Your task to perform on an android device: Search for a coffee table on IKEA Image 0: 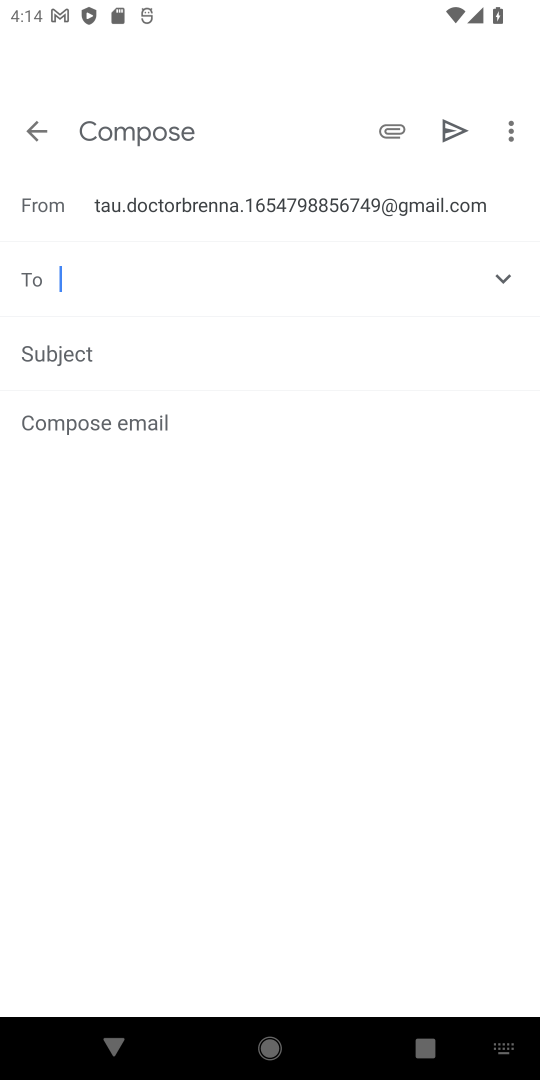
Step 0: press home button
Your task to perform on an android device: Search for a coffee table on IKEA Image 1: 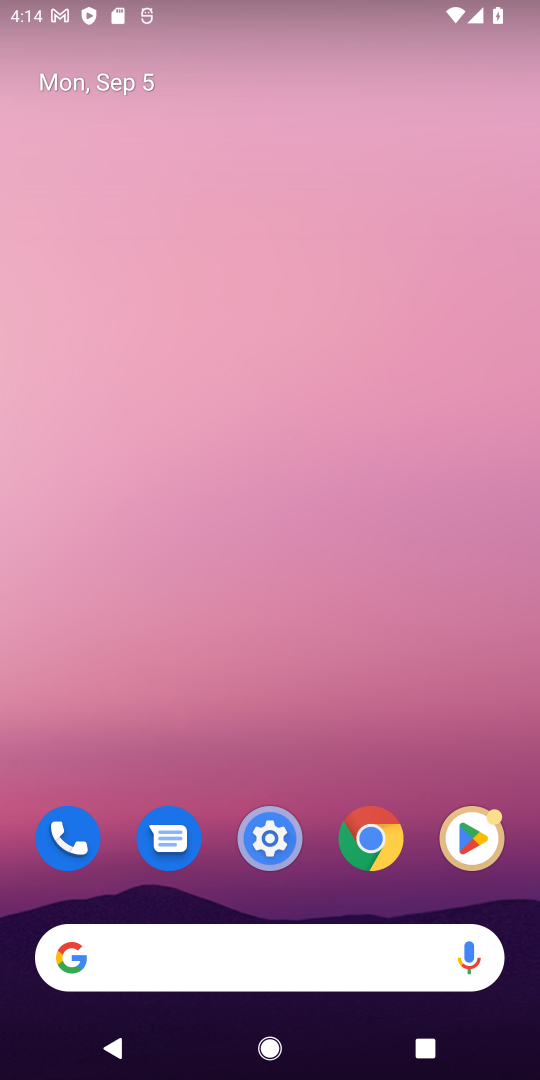
Step 1: drag from (309, 578) to (218, 179)
Your task to perform on an android device: Search for a coffee table on IKEA Image 2: 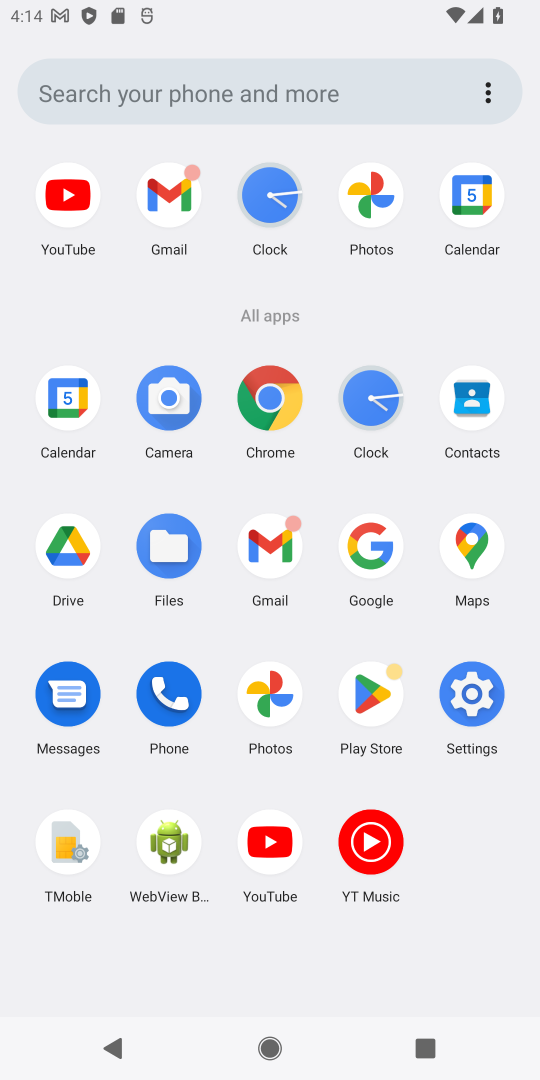
Step 2: click (264, 412)
Your task to perform on an android device: Search for a coffee table on IKEA Image 3: 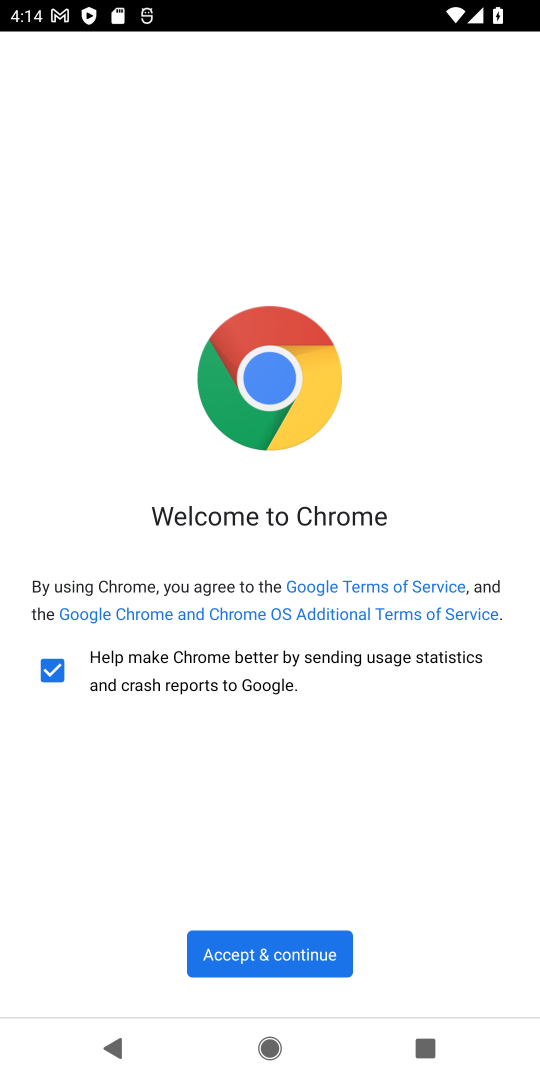
Step 3: click (312, 949)
Your task to perform on an android device: Search for a coffee table on IKEA Image 4: 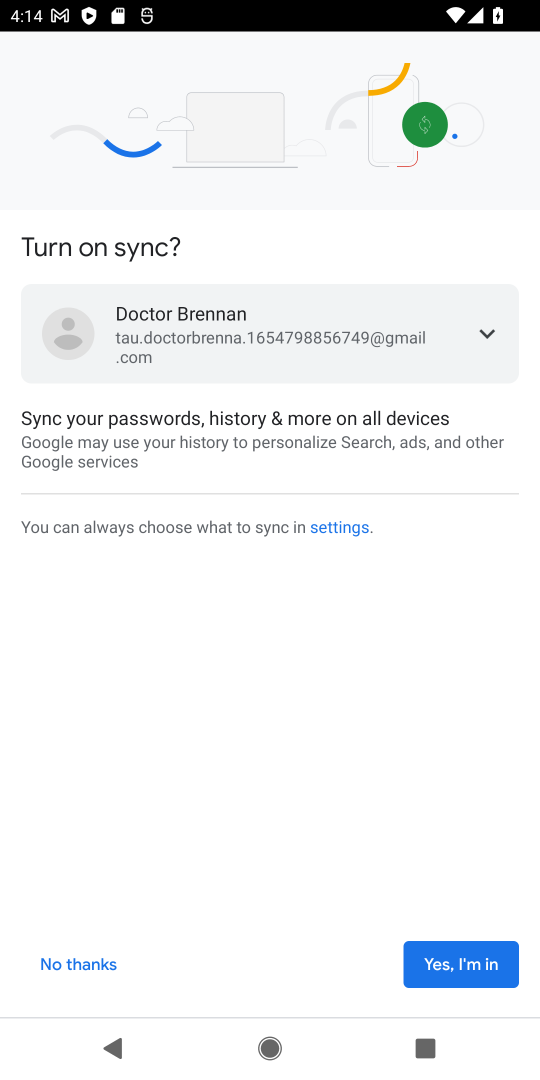
Step 4: click (453, 961)
Your task to perform on an android device: Search for a coffee table on IKEA Image 5: 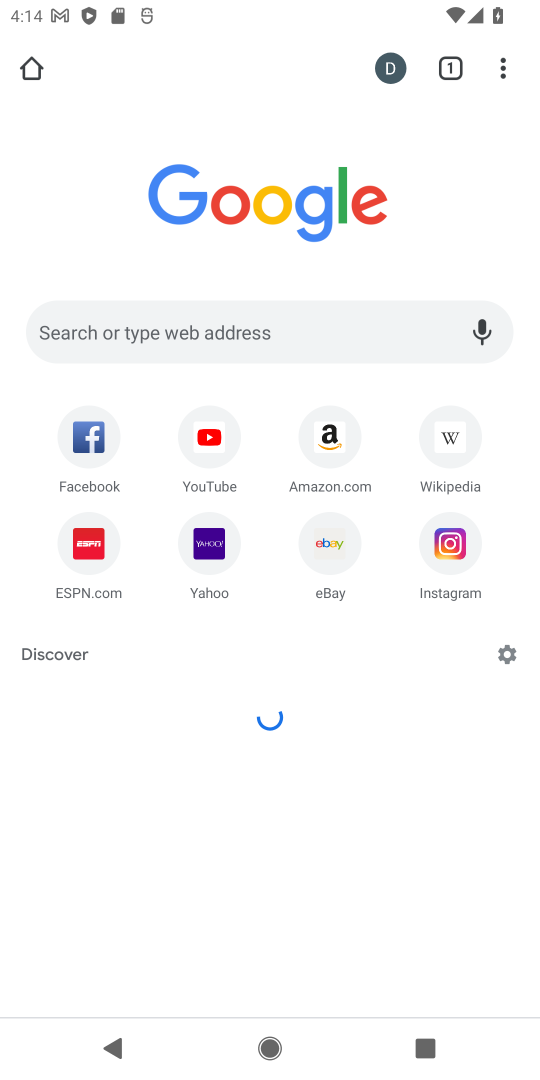
Step 5: click (197, 331)
Your task to perform on an android device: Search for a coffee table on IKEA Image 6: 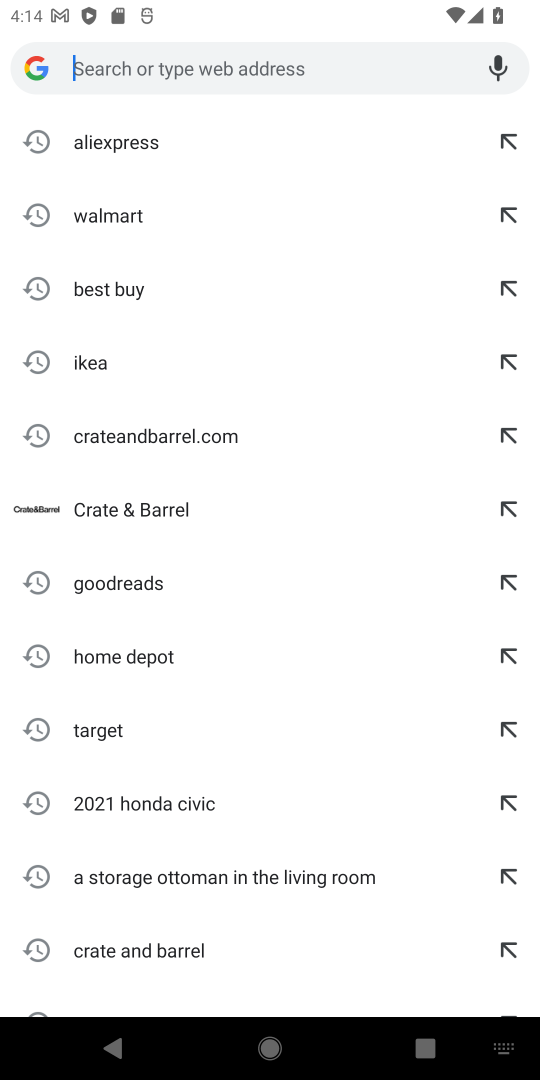
Step 6: type "IKEA"
Your task to perform on an android device: Search for a coffee table on IKEA Image 7: 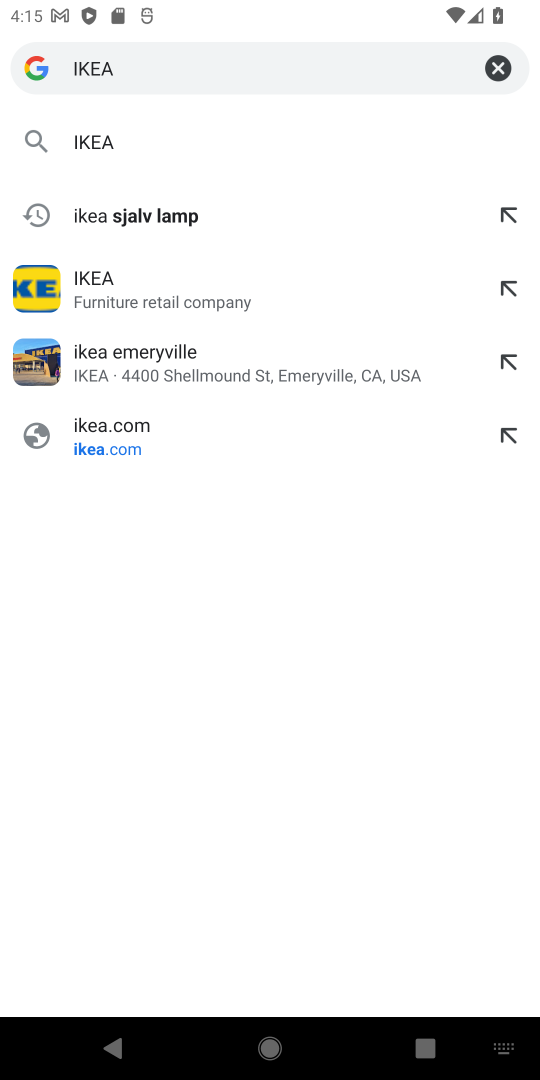
Step 7: click (84, 142)
Your task to perform on an android device: Search for a coffee table on IKEA Image 8: 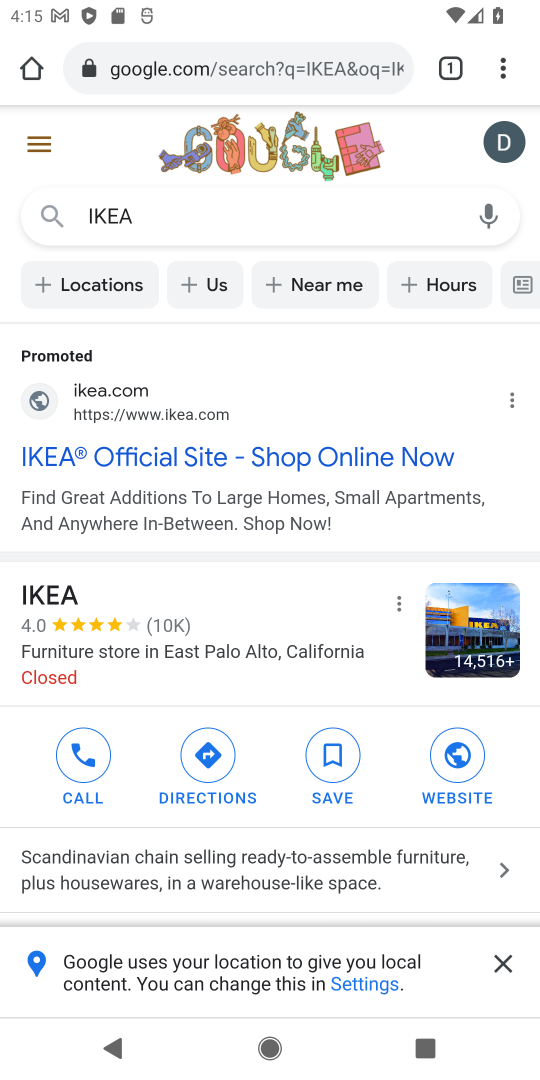
Step 8: click (137, 442)
Your task to perform on an android device: Search for a coffee table on IKEA Image 9: 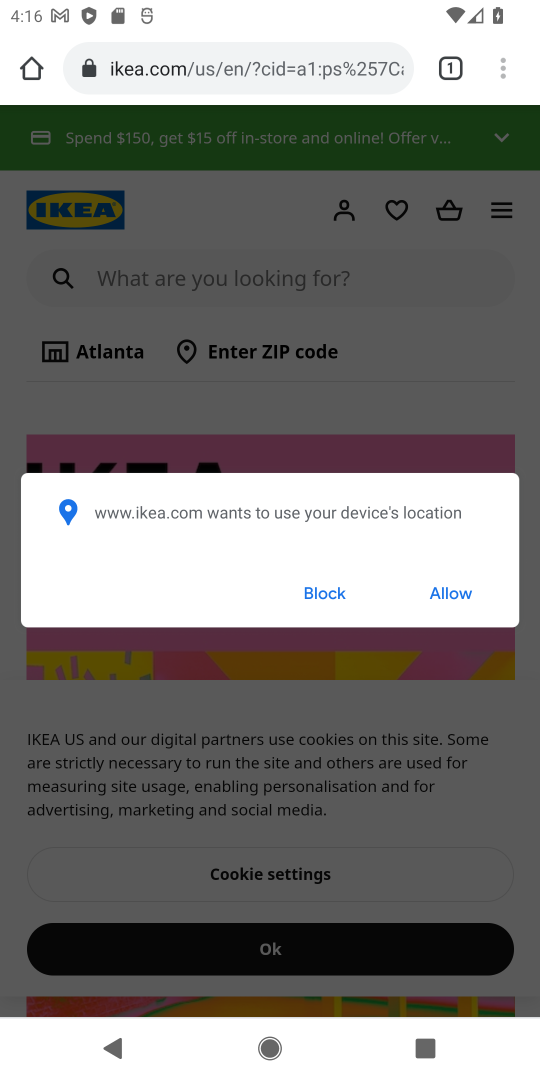
Step 9: click (455, 584)
Your task to perform on an android device: Search for a coffee table on IKEA Image 10: 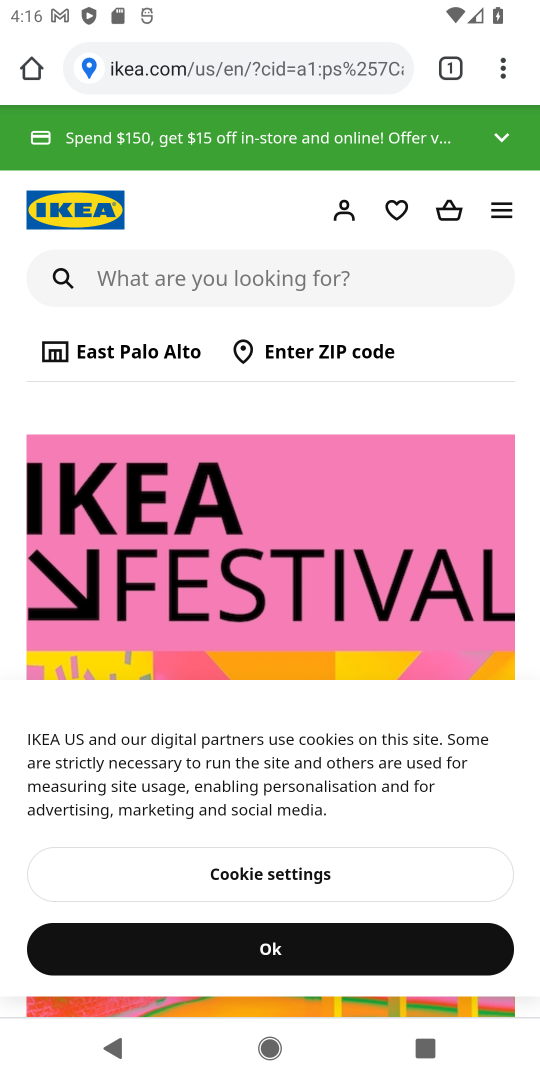
Step 10: click (187, 277)
Your task to perform on an android device: Search for a coffee table on IKEA Image 11: 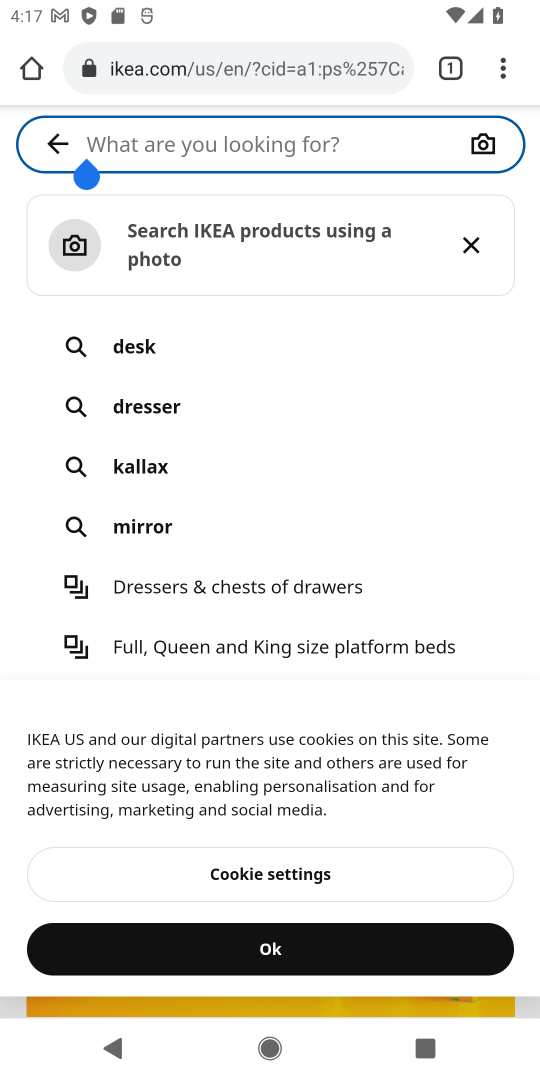
Step 11: type " coffee table"
Your task to perform on an android device: Search for a coffee table on IKEA Image 12: 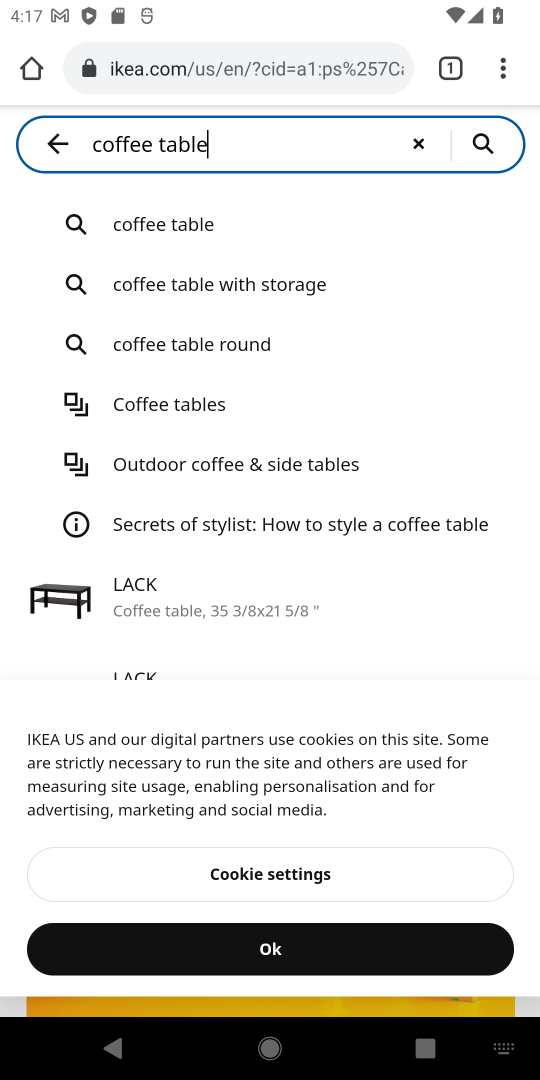
Step 12: click (164, 222)
Your task to perform on an android device: Search for a coffee table on IKEA Image 13: 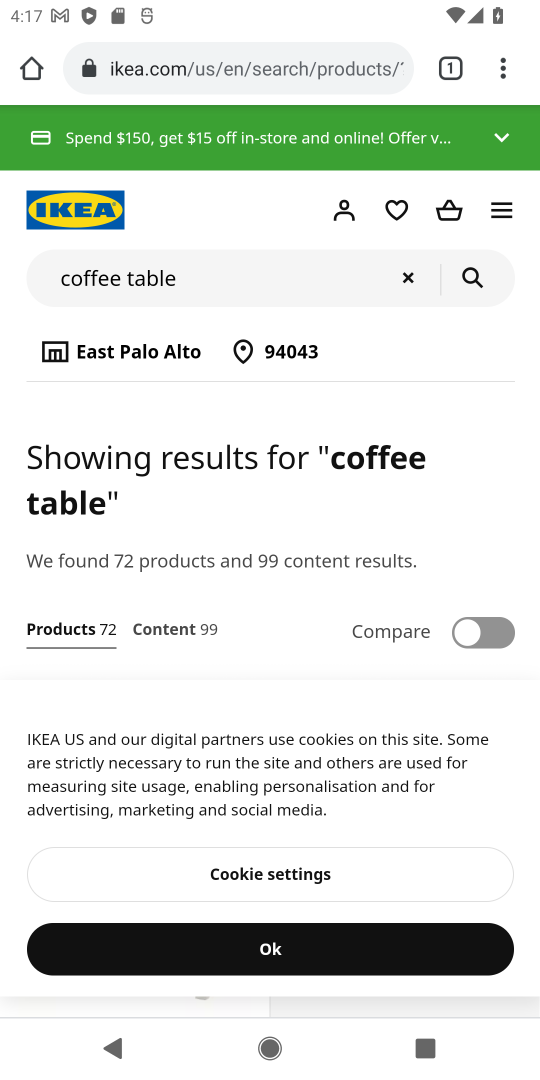
Step 13: task complete